Your task to perform on an android device: Go to Android settings Image 0: 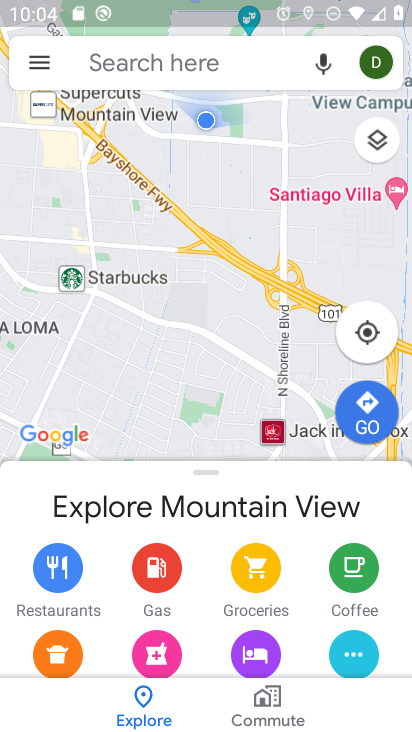
Step 0: press home button
Your task to perform on an android device: Go to Android settings Image 1: 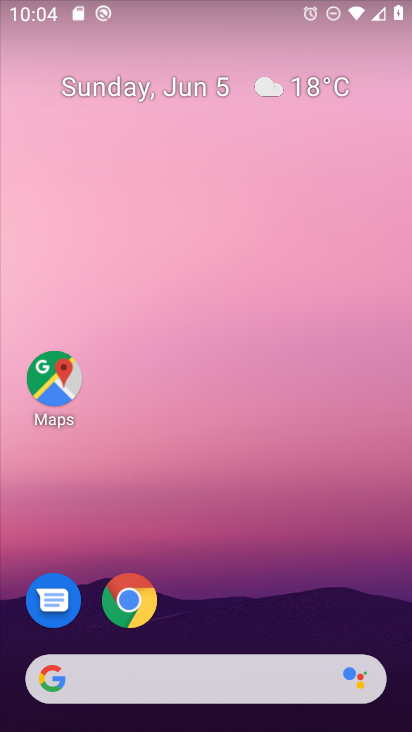
Step 1: drag from (261, 568) to (277, 29)
Your task to perform on an android device: Go to Android settings Image 2: 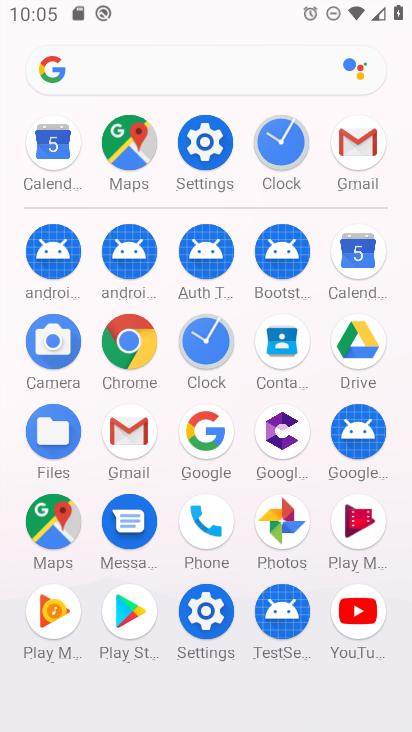
Step 2: click (208, 147)
Your task to perform on an android device: Go to Android settings Image 3: 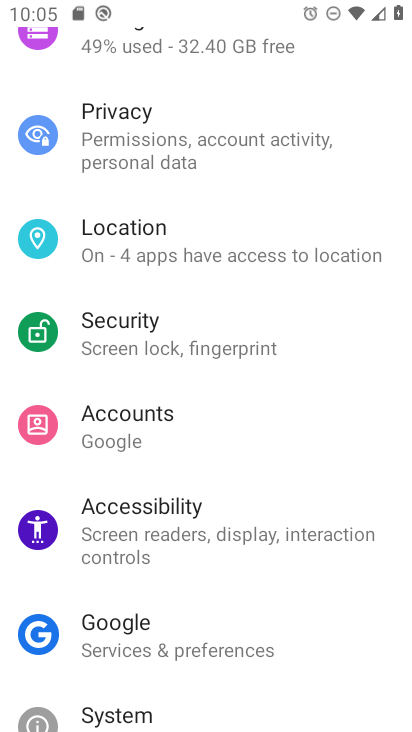
Step 3: drag from (252, 554) to (237, 271)
Your task to perform on an android device: Go to Android settings Image 4: 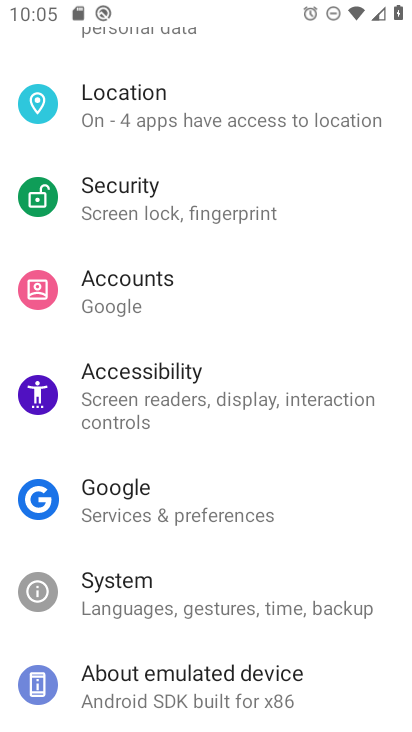
Step 4: click (209, 688)
Your task to perform on an android device: Go to Android settings Image 5: 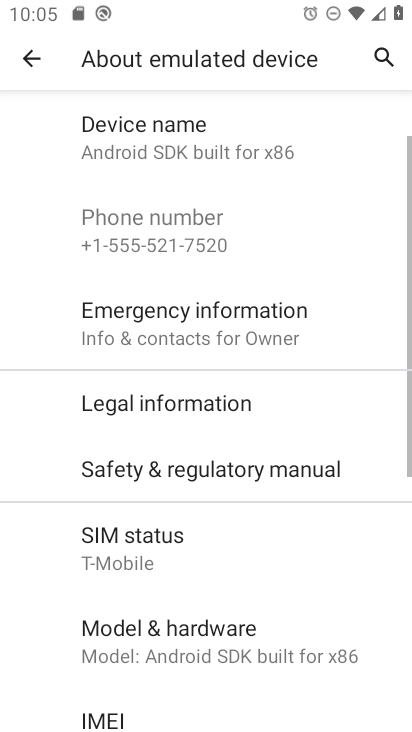
Step 5: task complete